Your task to perform on an android device: How do I get to the nearest grocery store? Image 0: 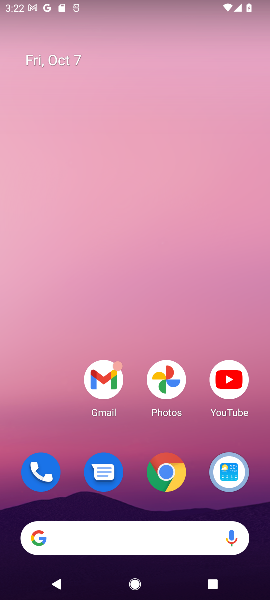
Step 0: drag from (136, 529) to (184, 197)
Your task to perform on an android device: How do I get to the nearest grocery store? Image 1: 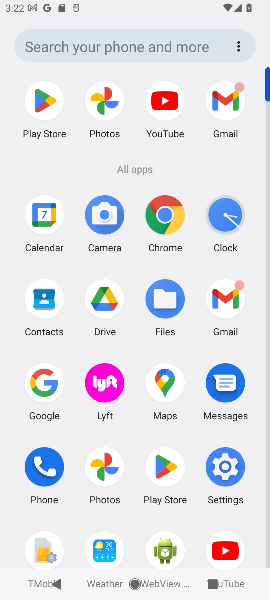
Step 1: click (166, 382)
Your task to perform on an android device: How do I get to the nearest grocery store? Image 2: 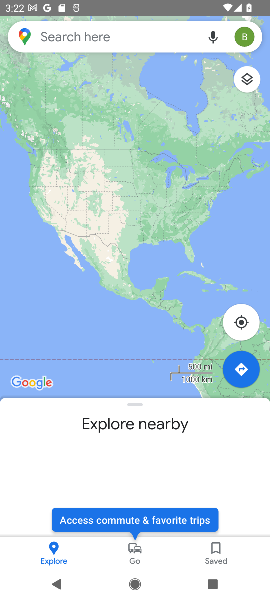
Step 2: click (133, 36)
Your task to perform on an android device: How do I get to the nearest grocery store? Image 3: 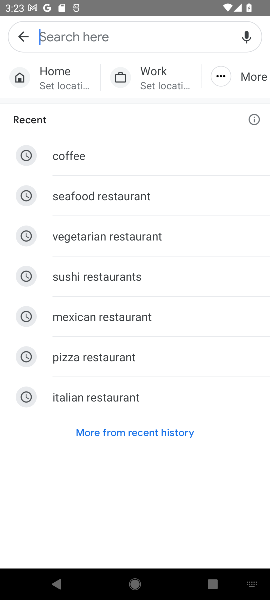
Step 3: type "nearest grocery store"
Your task to perform on an android device: How do I get to the nearest grocery store? Image 4: 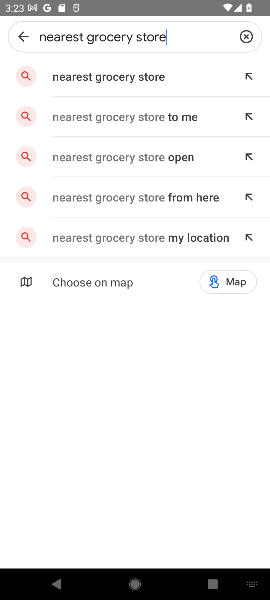
Step 4: click (129, 82)
Your task to perform on an android device: How do I get to the nearest grocery store? Image 5: 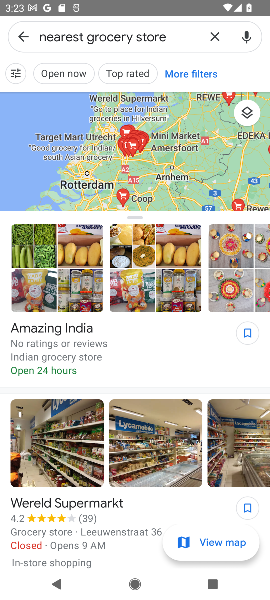
Step 5: task complete